Your task to perform on an android device: change the clock display to show seconds Image 0: 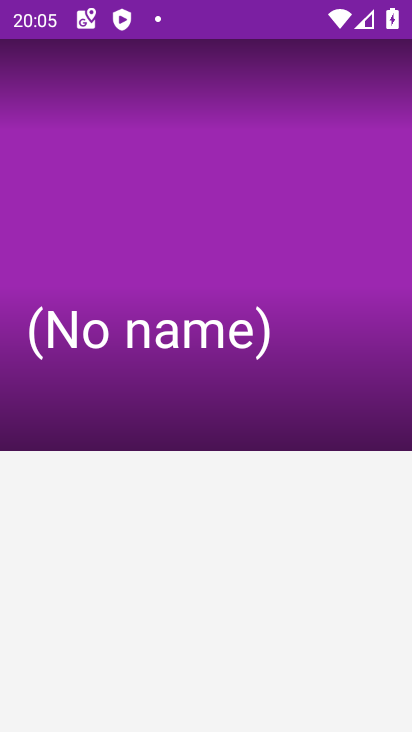
Step 0: drag from (205, 582) to (196, 273)
Your task to perform on an android device: change the clock display to show seconds Image 1: 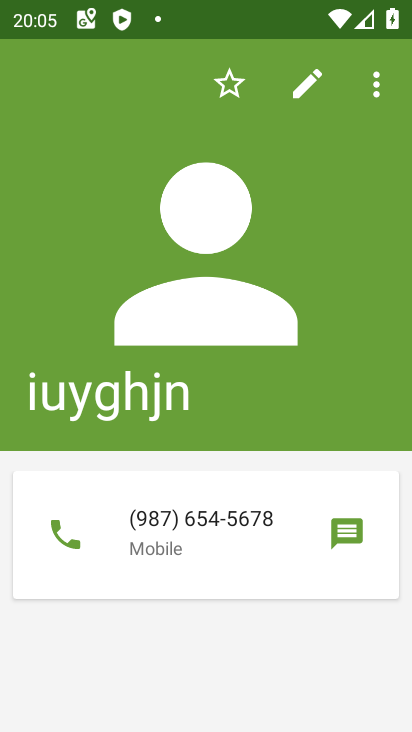
Step 1: click (196, 273)
Your task to perform on an android device: change the clock display to show seconds Image 2: 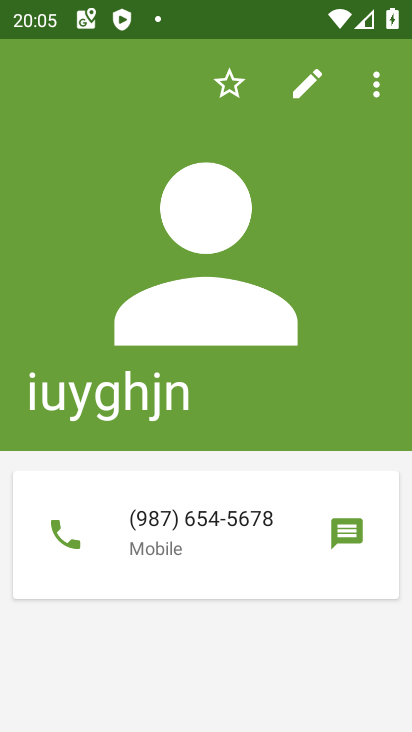
Step 2: press home button
Your task to perform on an android device: change the clock display to show seconds Image 3: 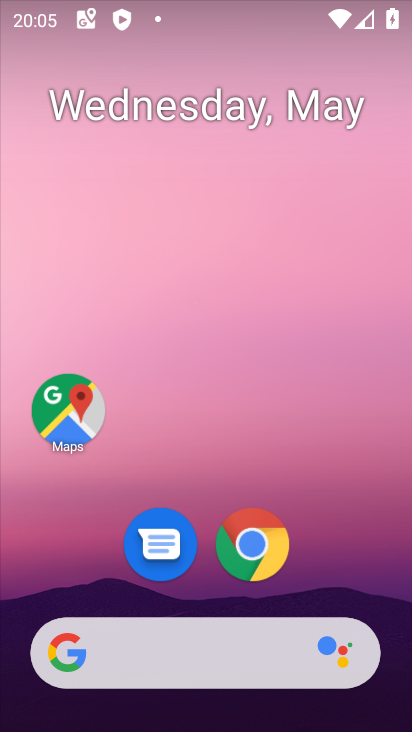
Step 3: drag from (201, 598) to (178, 219)
Your task to perform on an android device: change the clock display to show seconds Image 4: 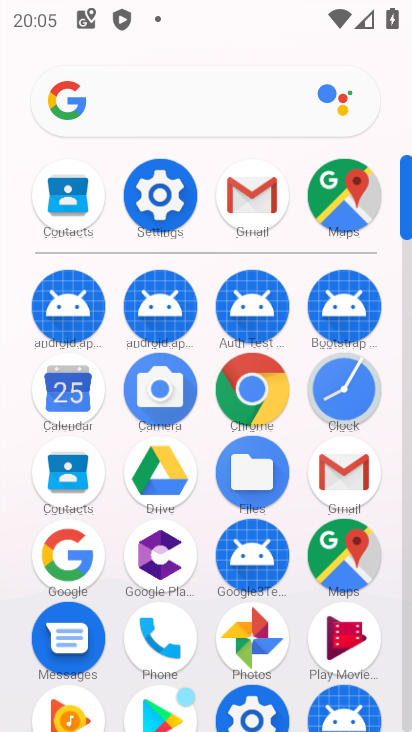
Step 4: click (337, 380)
Your task to perform on an android device: change the clock display to show seconds Image 5: 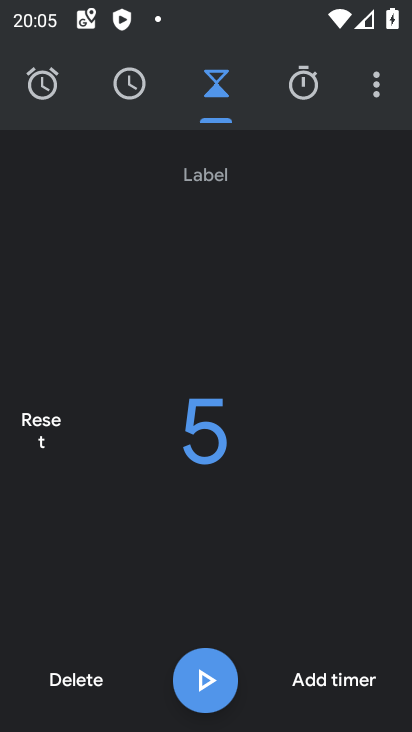
Step 5: click (387, 91)
Your task to perform on an android device: change the clock display to show seconds Image 6: 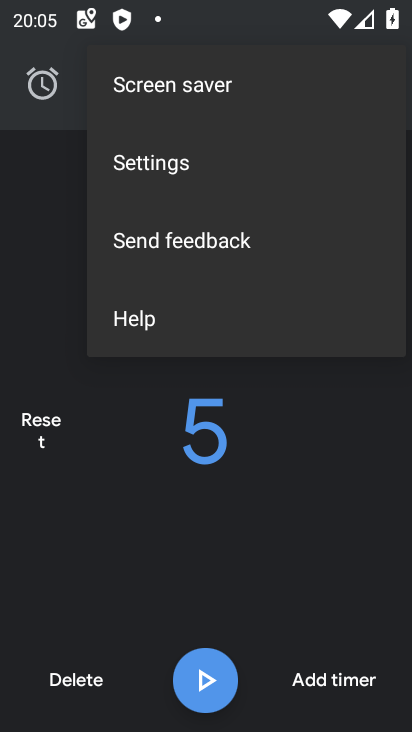
Step 6: click (177, 179)
Your task to perform on an android device: change the clock display to show seconds Image 7: 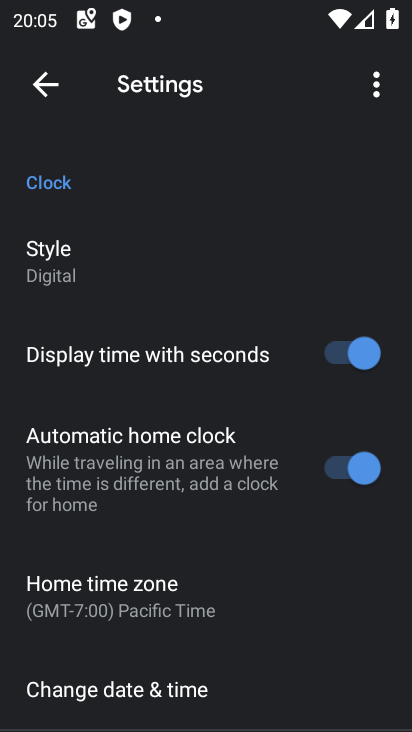
Step 7: task complete